Your task to perform on an android device: Open Google Chrome and click the shortcut for Amazon.com Image 0: 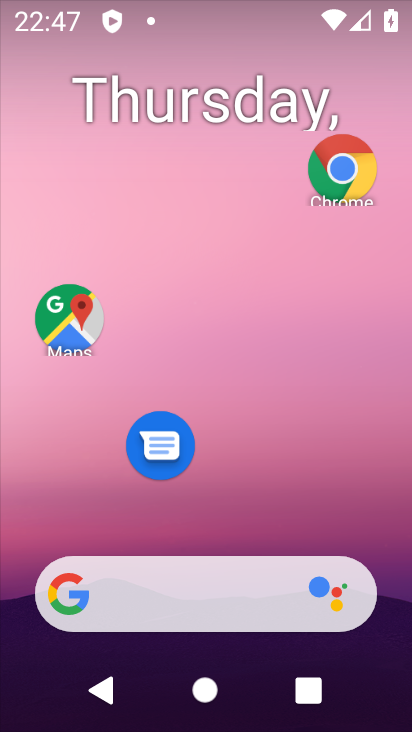
Step 0: click (269, 61)
Your task to perform on an android device: Open Google Chrome and click the shortcut for Amazon.com Image 1: 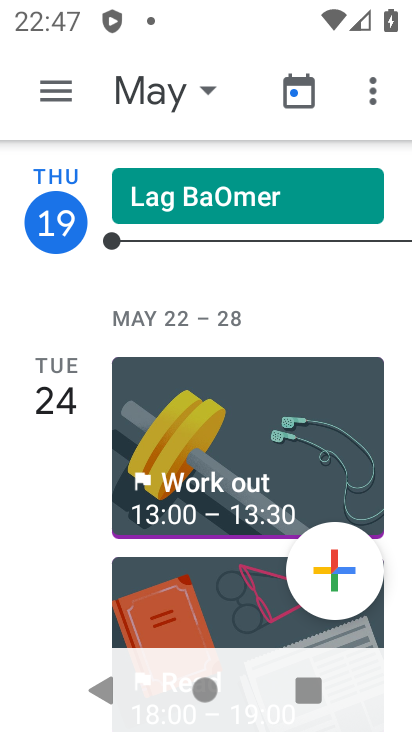
Step 1: press home button
Your task to perform on an android device: Open Google Chrome and click the shortcut for Amazon.com Image 2: 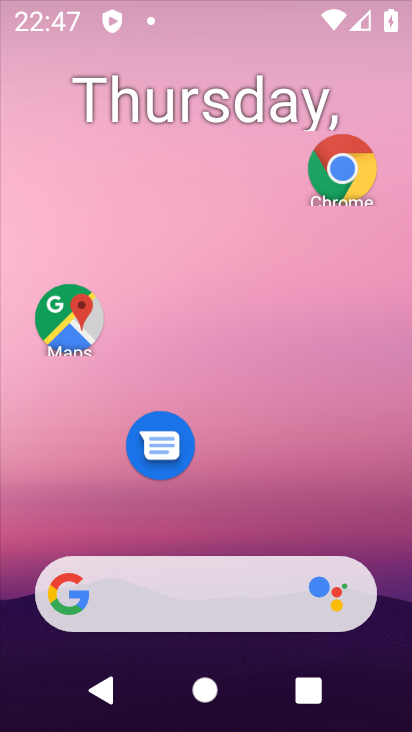
Step 2: drag from (216, 591) to (235, 75)
Your task to perform on an android device: Open Google Chrome and click the shortcut for Amazon.com Image 3: 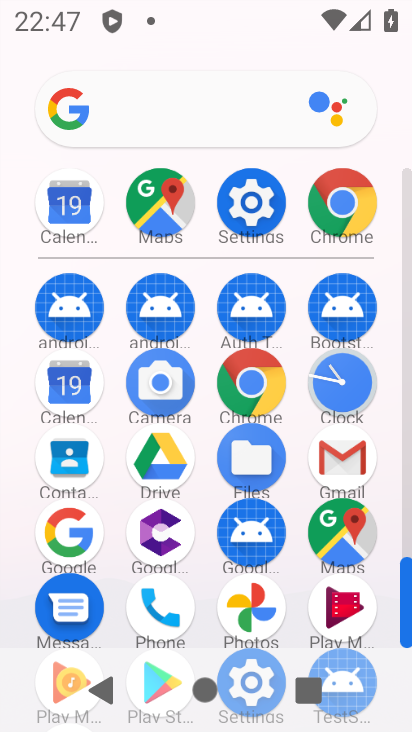
Step 3: click (340, 205)
Your task to perform on an android device: Open Google Chrome and click the shortcut for Amazon.com Image 4: 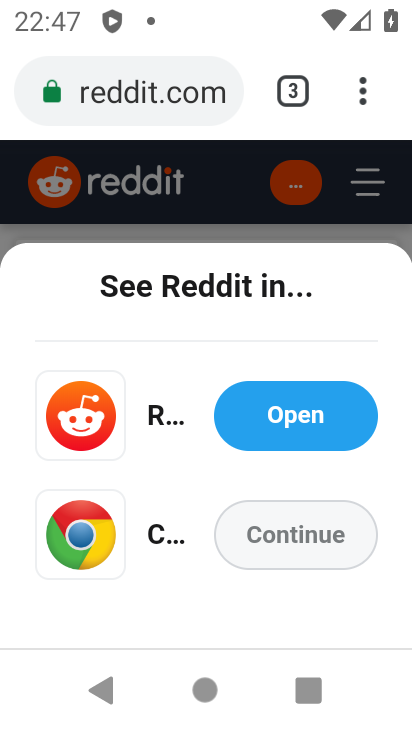
Step 4: click (179, 231)
Your task to perform on an android device: Open Google Chrome and click the shortcut for Amazon.com Image 5: 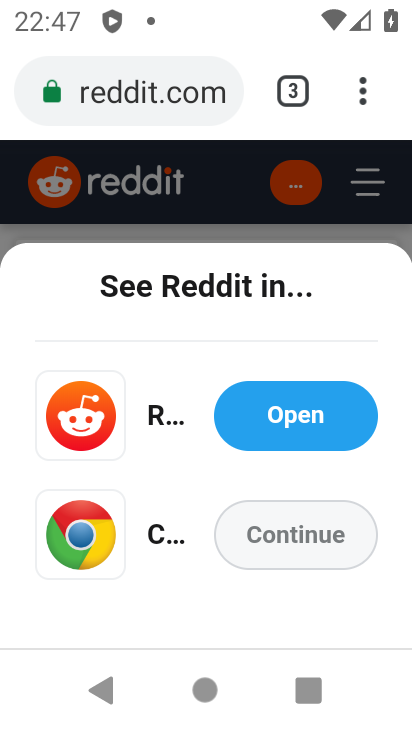
Step 5: click (279, 529)
Your task to perform on an android device: Open Google Chrome and click the shortcut for Amazon.com Image 6: 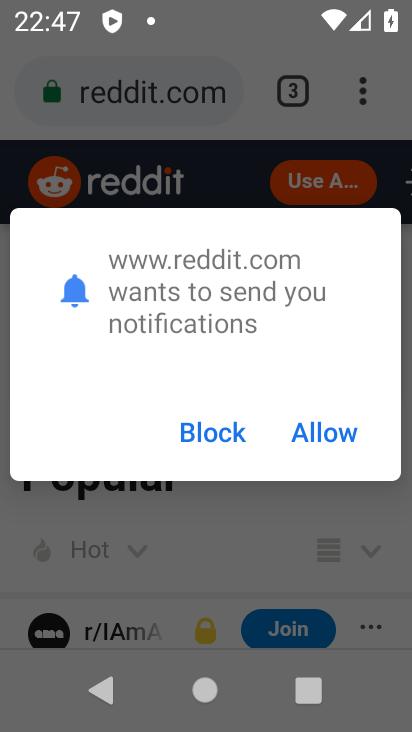
Step 6: click (309, 431)
Your task to perform on an android device: Open Google Chrome and click the shortcut for Amazon.com Image 7: 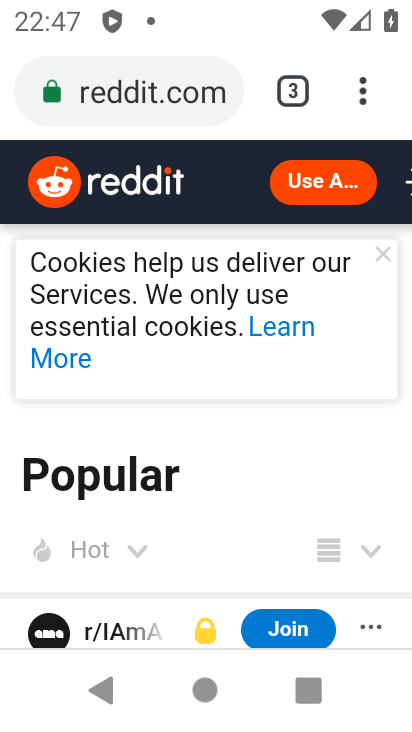
Step 7: drag from (182, 514) to (295, 109)
Your task to perform on an android device: Open Google Chrome and click the shortcut for Amazon.com Image 8: 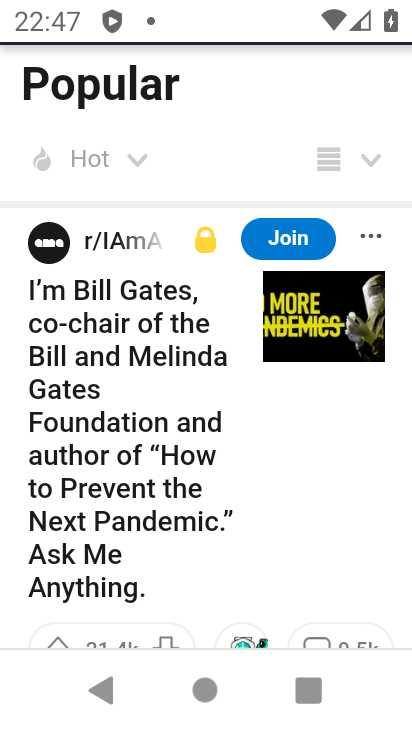
Step 8: drag from (280, 172) to (347, 679)
Your task to perform on an android device: Open Google Chrome and click the shortcut for Amazon.com Image 9: 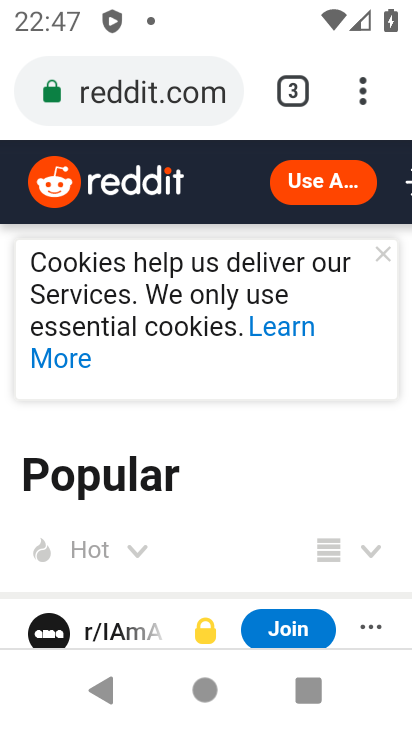
Step 9: click (297, 95)
Your task to perform on an android device: Open Google Chrome and click the shortcut for Amazon.com Image 10: 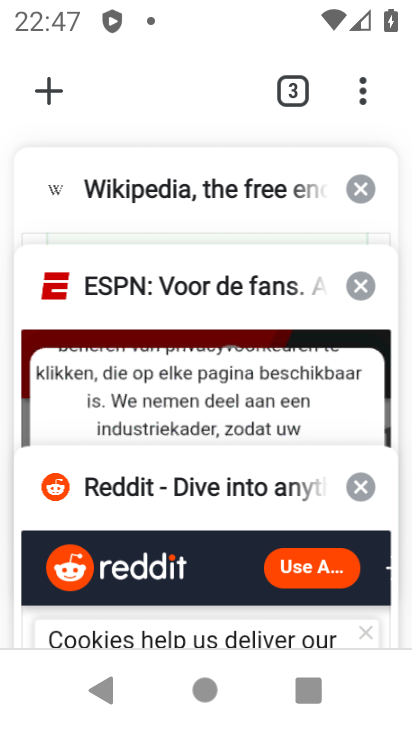
Step 10: click (39, 85)
Your task to perform on an android device: Open Google Chrome and click the shortcut for Amazon.com Image 11: 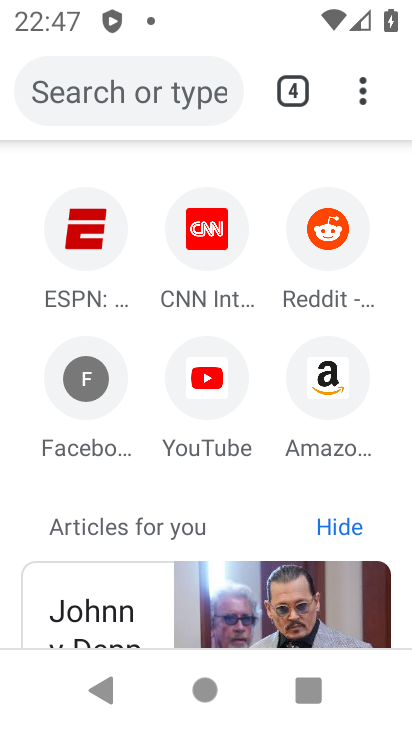
Step 11: click (325, 390)
Your task to perform on an android device: Open Google Chrome and click the shortcut for Amazon.com Image 12: 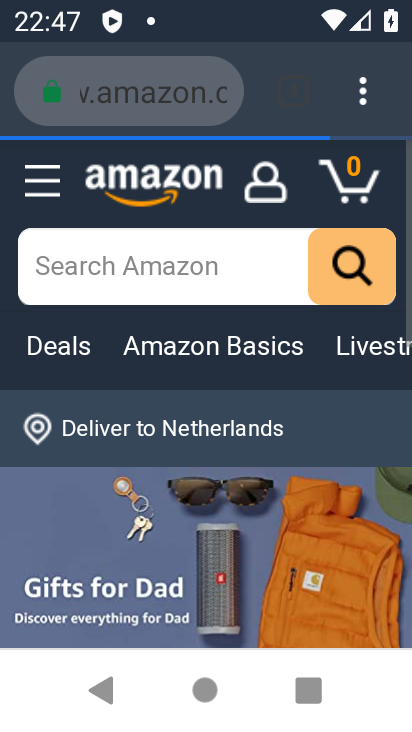
Step 12: task complete